Your task to perform on an android device: toggle priority inbox in the gmail app Image 0: 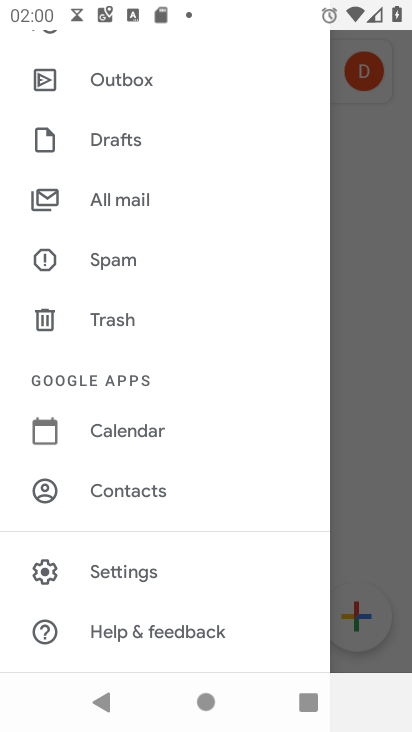
Step 0: click (147, 578)
Your task to perform on an android device: toggle priority inbox in the gmail app Image 1: 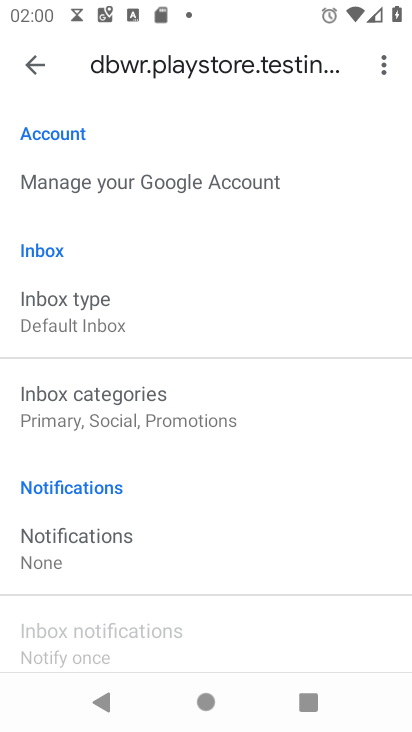
Step 1: drag from (123, 664) to (121, 325)
Your task to perform on an android device: toggle priority inbox in the gmail app Image 2: 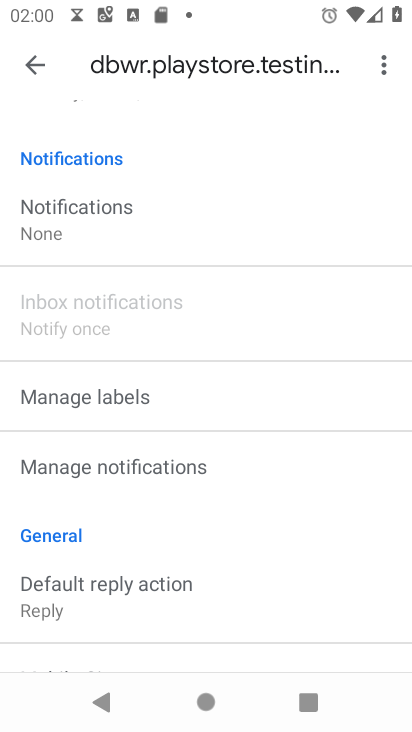
Step 2: drag from (63, 620) to (118, 304)
Your task to perform on an android device: toggle priority inbox in the gmail app Image 3: 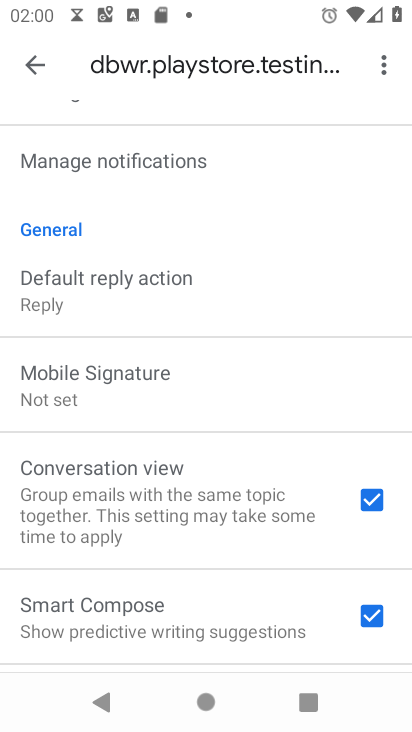
Step 3: drag from (118, 600) to (80, 236)
Your task to perform on an android device: toggle priority inbox in the gmail app Image 4: 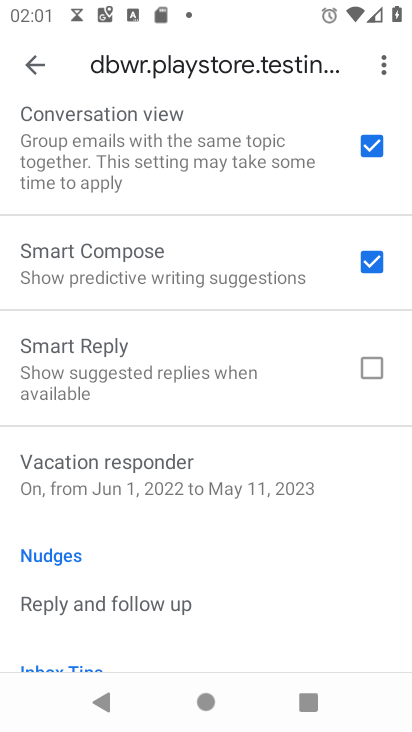
Step 4: drag from (118, 581) to (118, 162)
Your task to perform on an android device: toggle priority inbox in the gmail app Image 5: 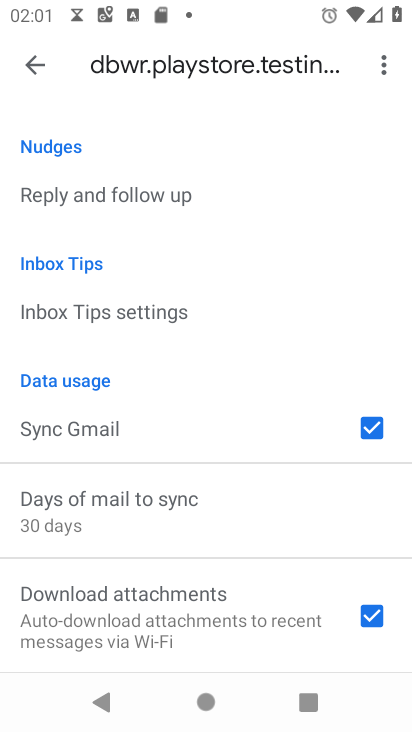
Step 5: drag from (13, 583) to (13, 207)
Your task to perform on an android device: toggle priority inbox in the gmail app Image 6: 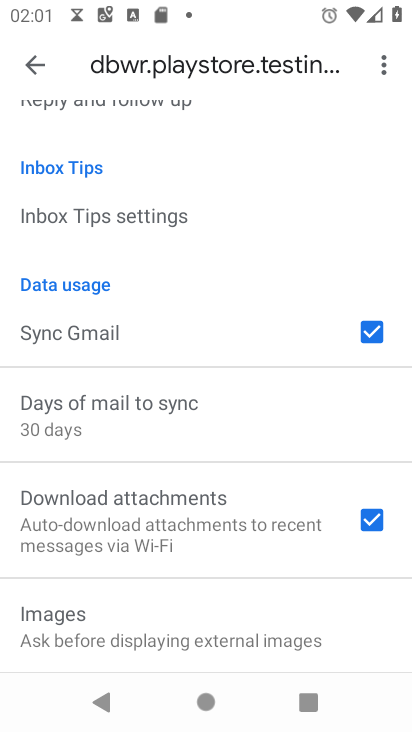
Step 6: drag from (224, 200) to (249, 516)
Your task to perform on an android device: toggle priority inbox in the gmail app Image 7: 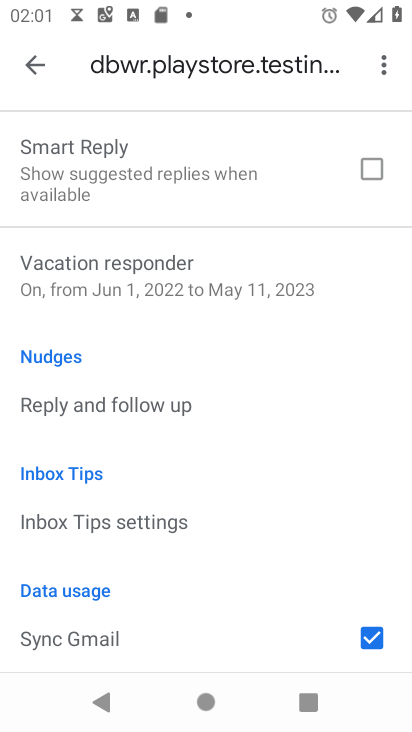
Step 7: drag from (177, 137) to (359, 562)
Your task to perform on an android device: toggle priority inbox in the gmail app Image 8: 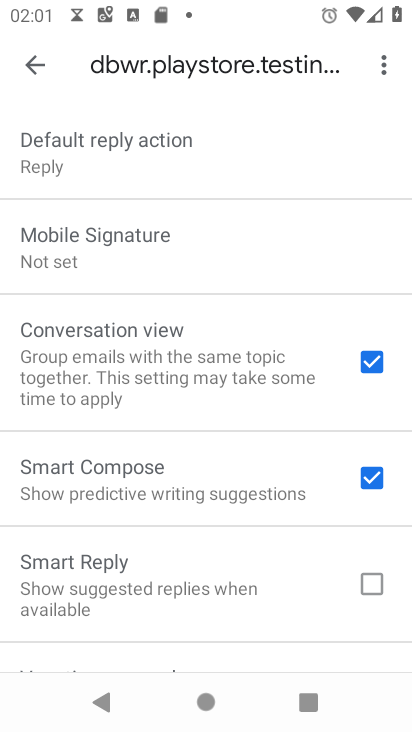
Step 8: drag from (117, 133) to (271, 723)
Your task to perform on an android device: toggle priority inbox in the gmail app Image 9: 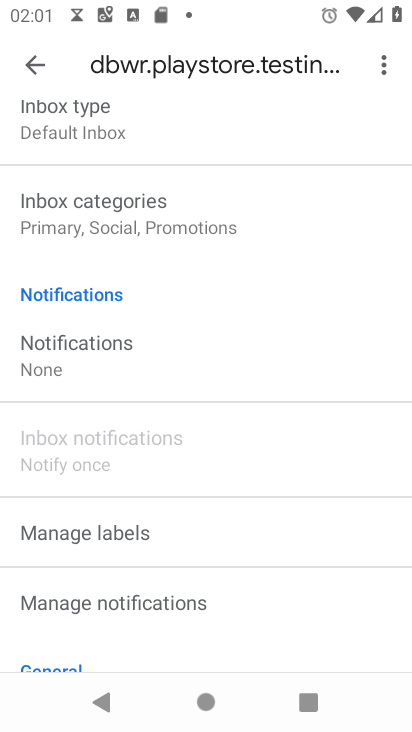
Step 9: drag from (230, 160) to (323, 688)
Your task to perform on an android device: toggle priority inbox in the gmail app Image 10: 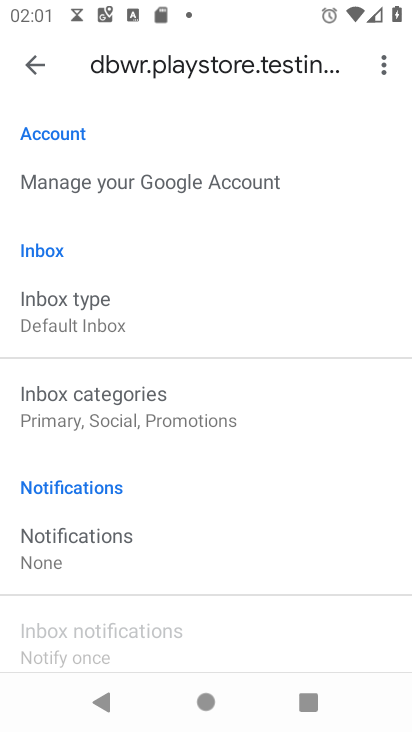
Step 10: click (122, 324)
Your task to perform on an android device: toggle priority inbox in the gmail app Image 11: 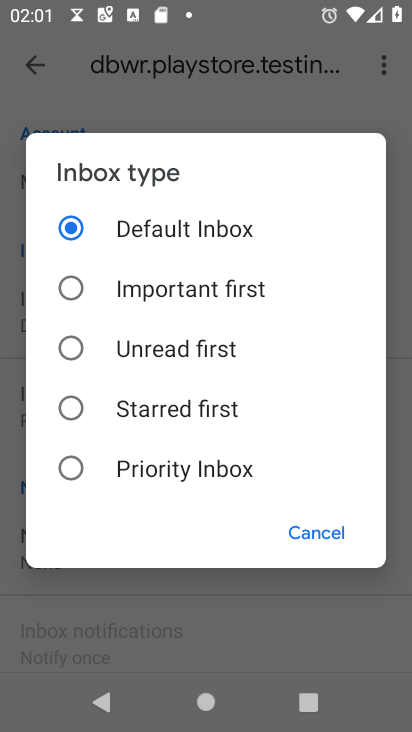
Step 11: click (148, 462)
Your task to perform on an android device: toggle priority inbox in the gmail app Image 12: 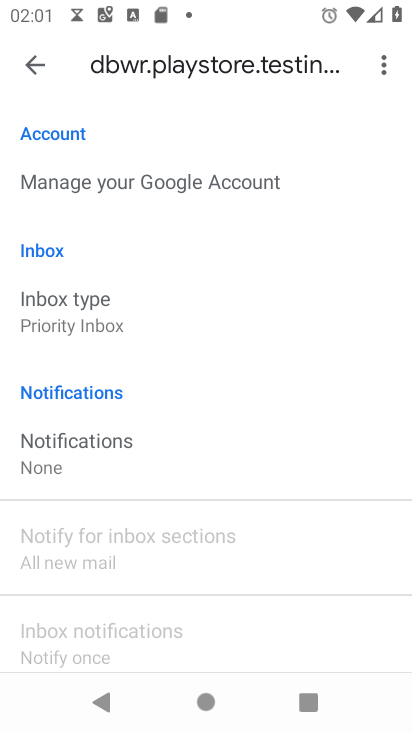
Step 12: task complete